Your task to perform on an android device: Open settings Image 0: 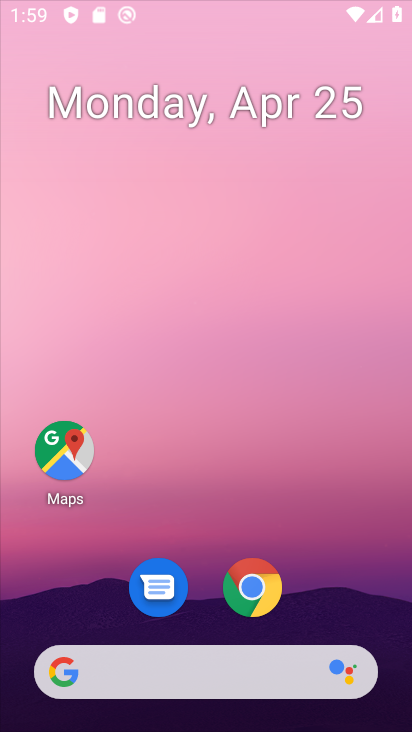
Step 0: click (338, 98)
Your task to perform on an android device: Open settings Image 1: 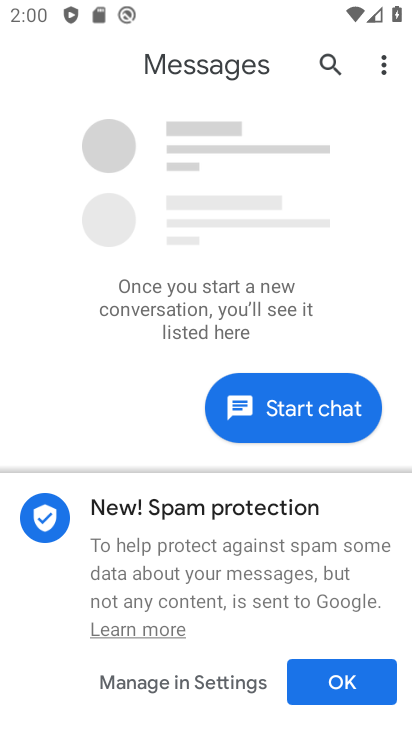
Step 1: press home button
Your task to perform on an android device: Open settings Image 2: 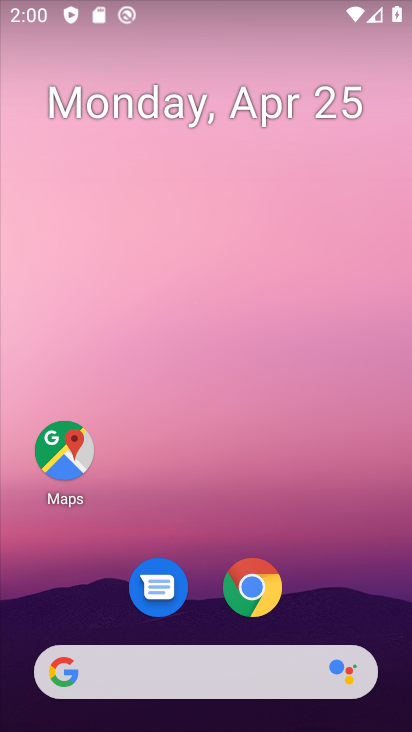
Step 2: drag from (344, 538) to (328, 42)
Your task to perform on an android device: Open settings Image 3: 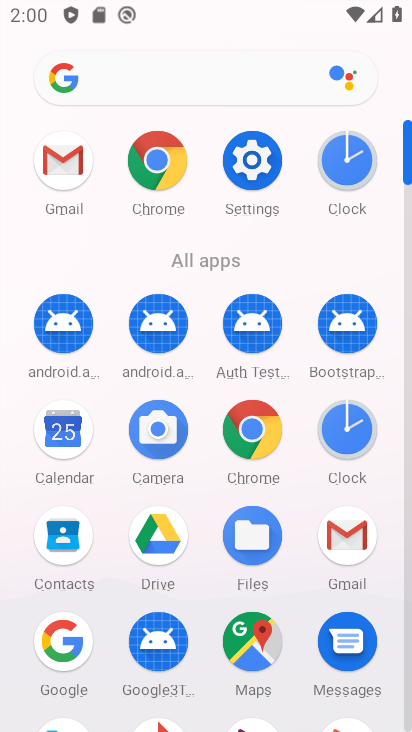
Step 3: click (250, 163)
Your task to perform on an android device: Open settings Image 4: 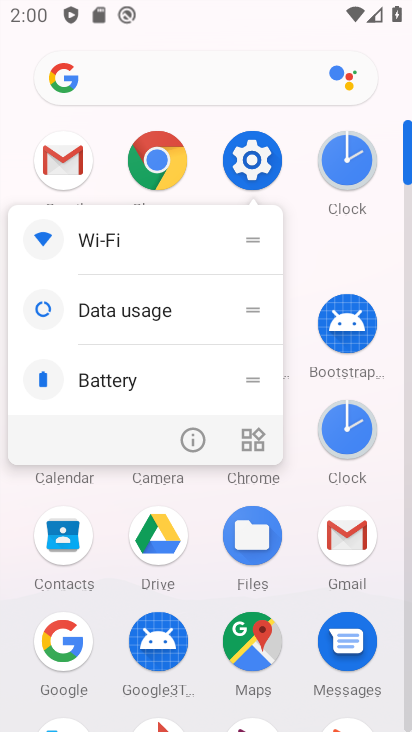
Step 4: click (250, 163)
Your task to perform on an android device: Open settings Image 5: 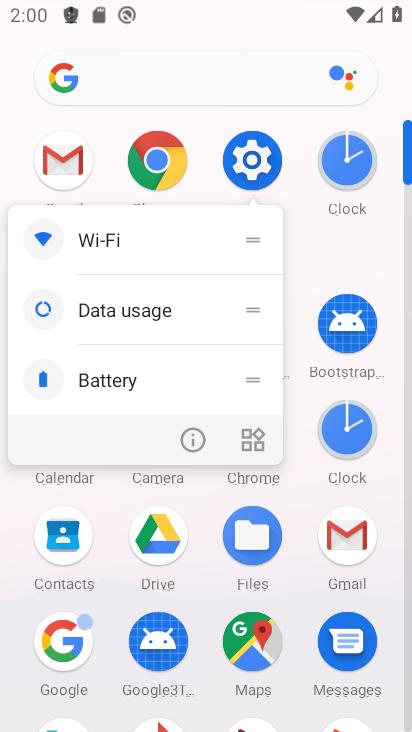
Step 5: click (250, 166)
Your task to perform on an android device: Open settings Image 6: 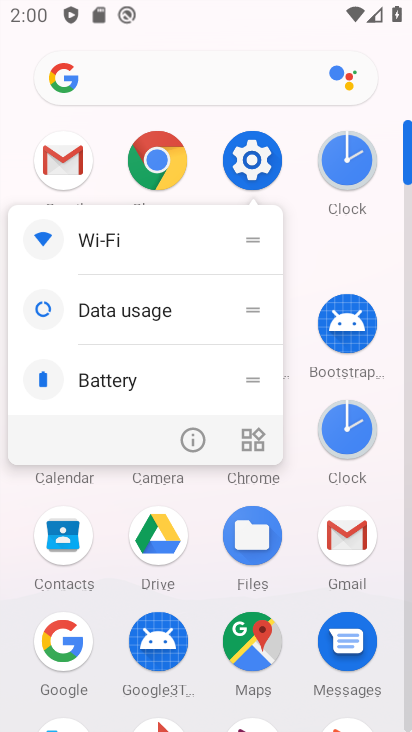
Step 6: click (256, 168)
Your task to perform on an android device: Open settings Image 7: 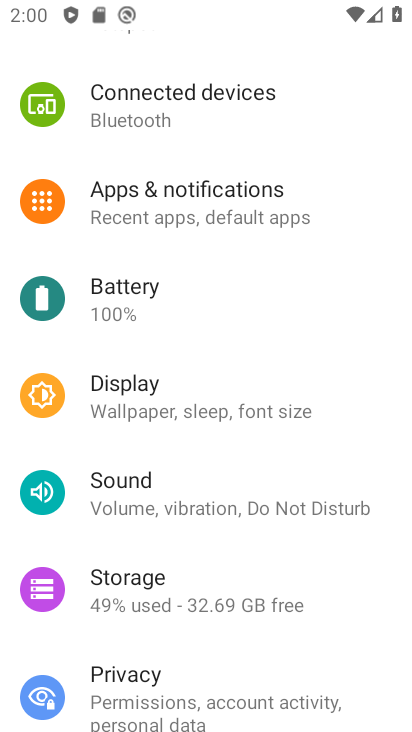
Step 7: task complete